Your task to perform on an android device: open chrome and create a bookmark for the current page Image 0: 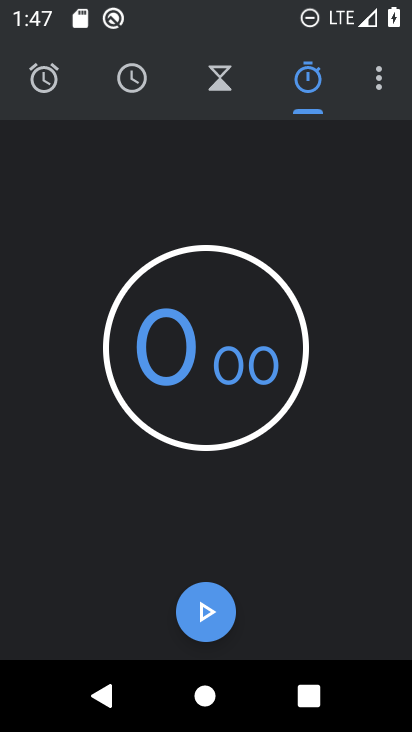
Step 0: press home button
Your task to perform on an android device: open chrome and create a bookmark for the current page Image 1: 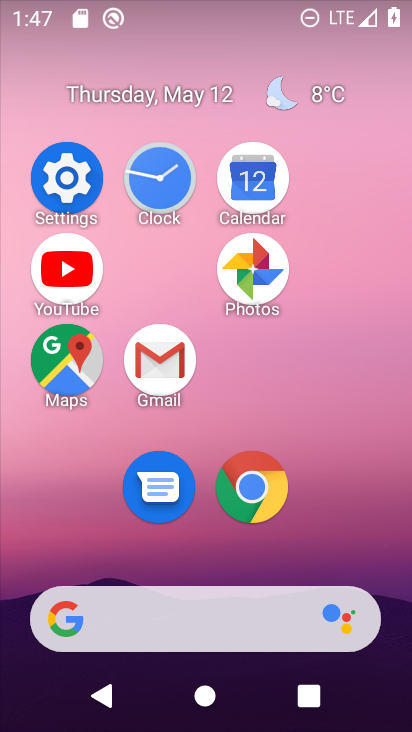
Step 1: click (243, 479)
Your task to perform on an android device: open chrome and create a bookmark for the current page Image 2: 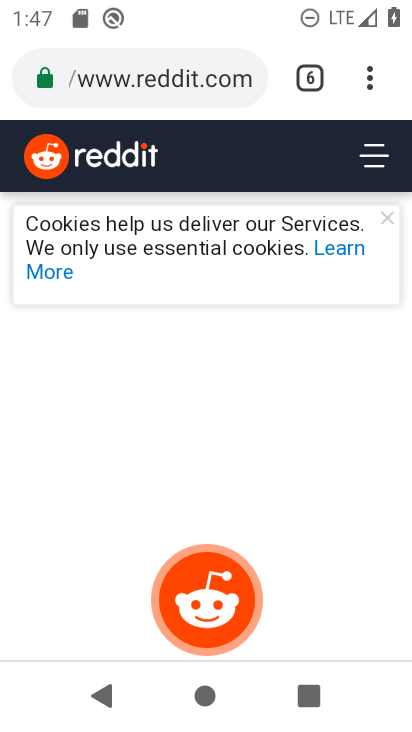
Step 2: click (363, 83)
Your task to perform on an android device: open chrome and create a bookmark for the current page Image 3: 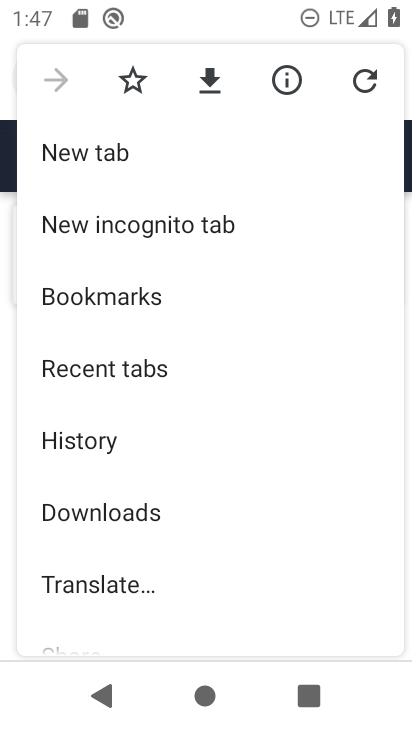
Step 3: click (140, 82)
Your task to perform on an android device: open chrome and create a bookmark for the current page Image 4: 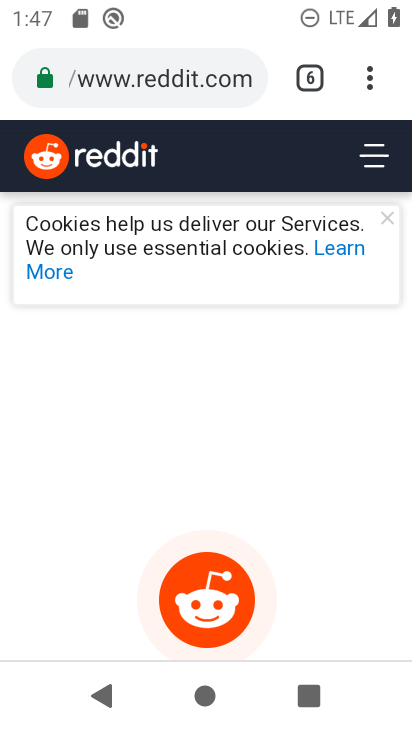
Step 4: task complete